Your task to perform on an android device: Check the news Image 0: 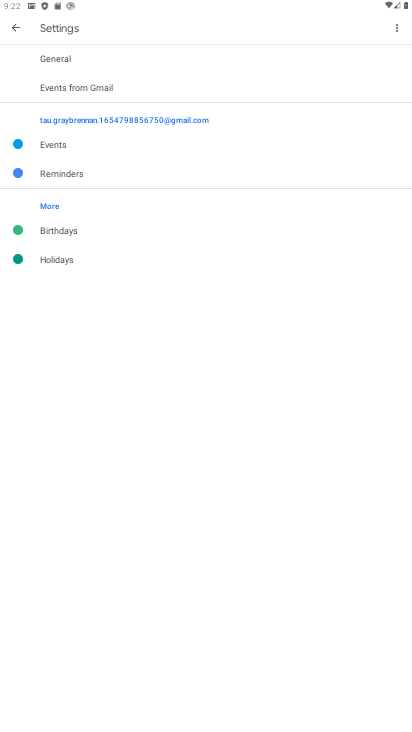
Step 0: press home button
Your task to perform on an android device: Check the news Image 1: 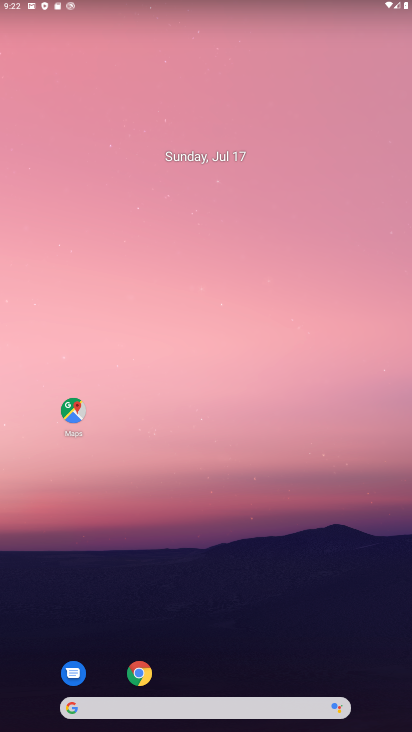
Step 1: task complete